Your task to perform on an android device: Go to accessibility settings Image 0: 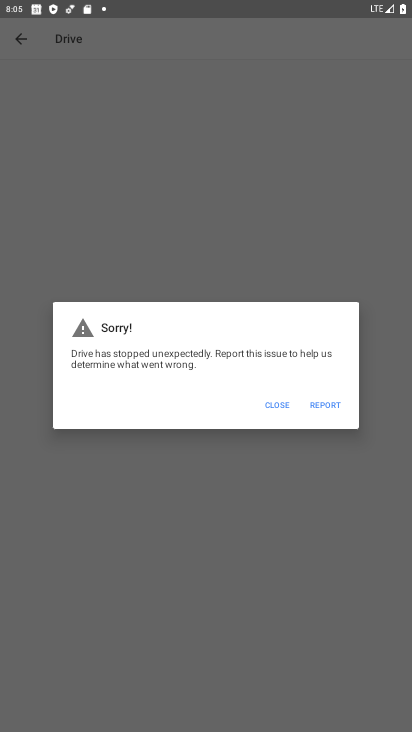
Step 0: press home button
Your task to perform on an android device: Go to accessibility settings Image 1: 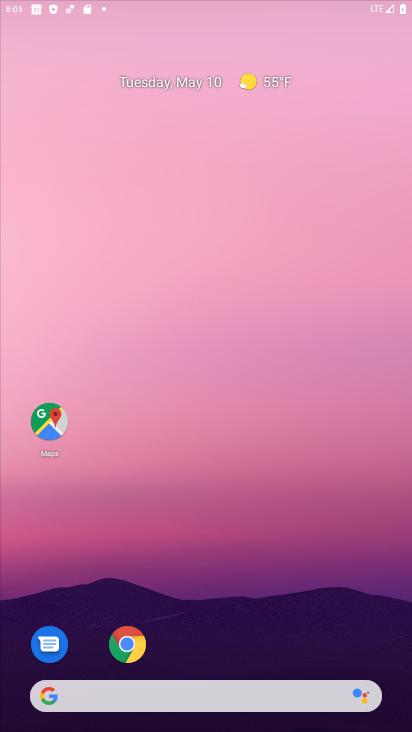
Step 1: drag from (220, 592) to (220, 0)
Your task to perform on an android device: Go to accessibility settings Image 2: 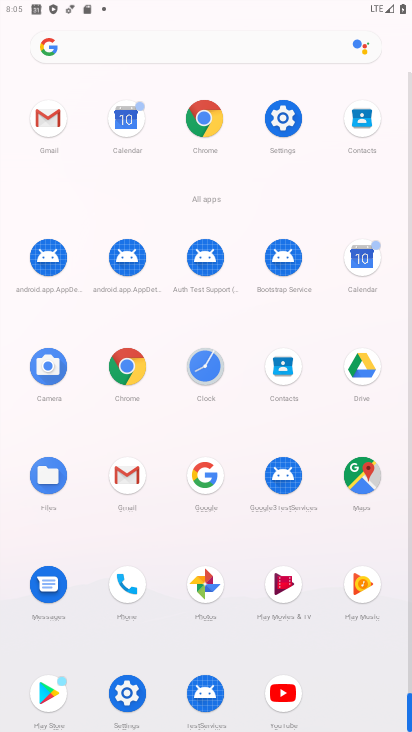
Step 2: click (279, 154)
Your task to perform on an android device: Go to accessibility settings Image 3: 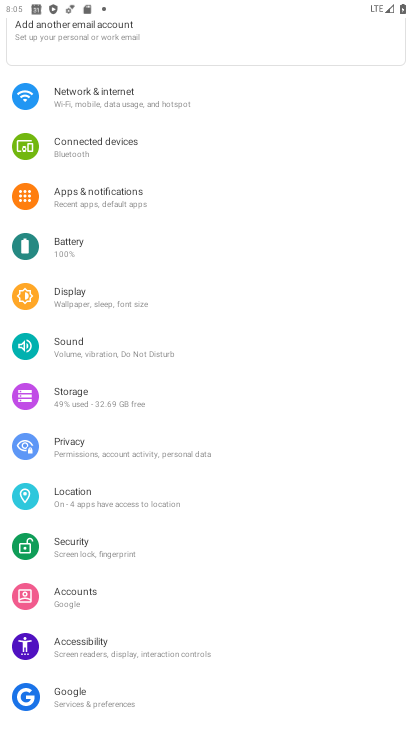
Step 3: drag from (229, 519) to (193, 185)
Your task to perform on an android device: Go to accessibility settings Image 4: 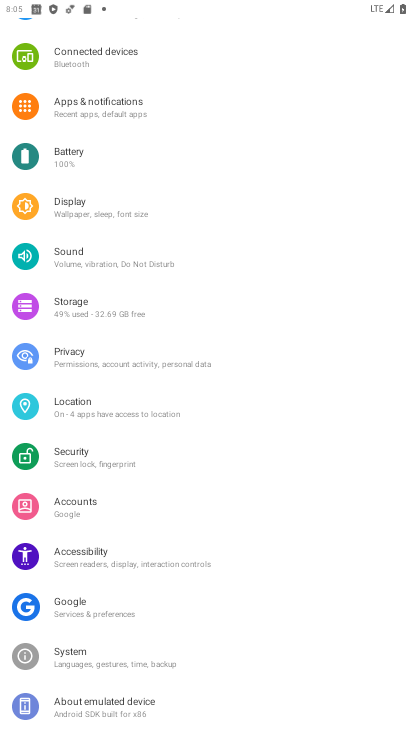
Step 4: click (151, 562)
Your task to perform on an android device: Go to accessibility settings Image 5: 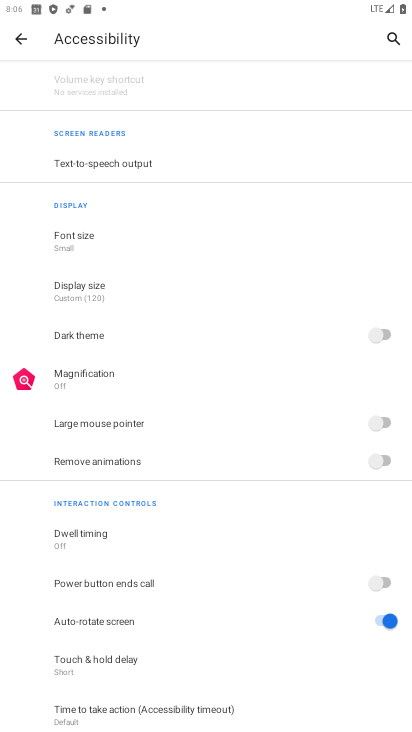
Step 5: task complete